Your task to perform on an android device: turn on sleep mode Image 0: 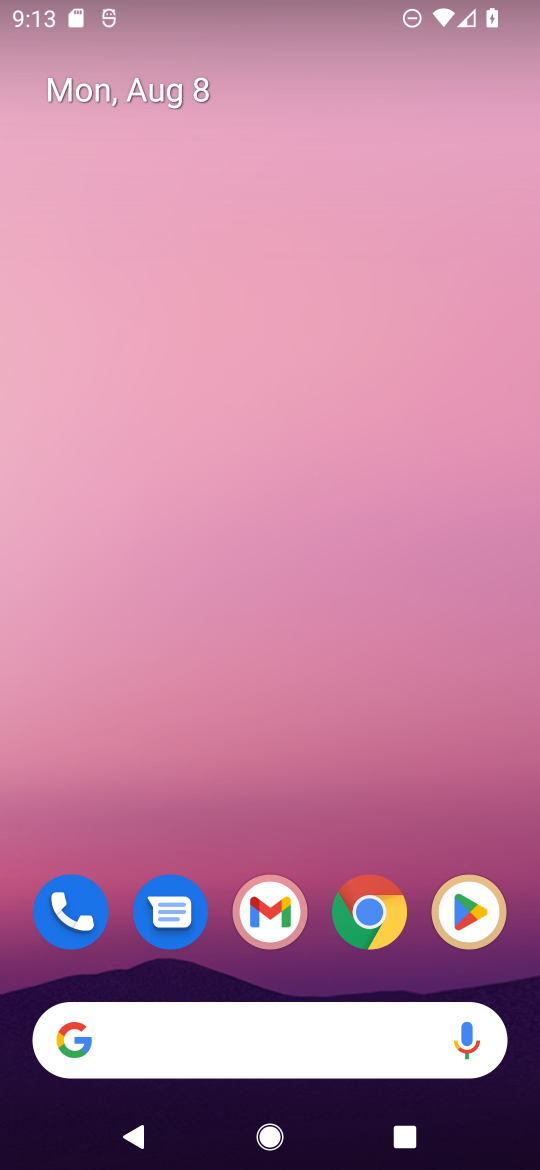
Step 0: drag from (412, 889) to (199, 16)
Your task to perform on an android device: turn on sleep mode Image 1: 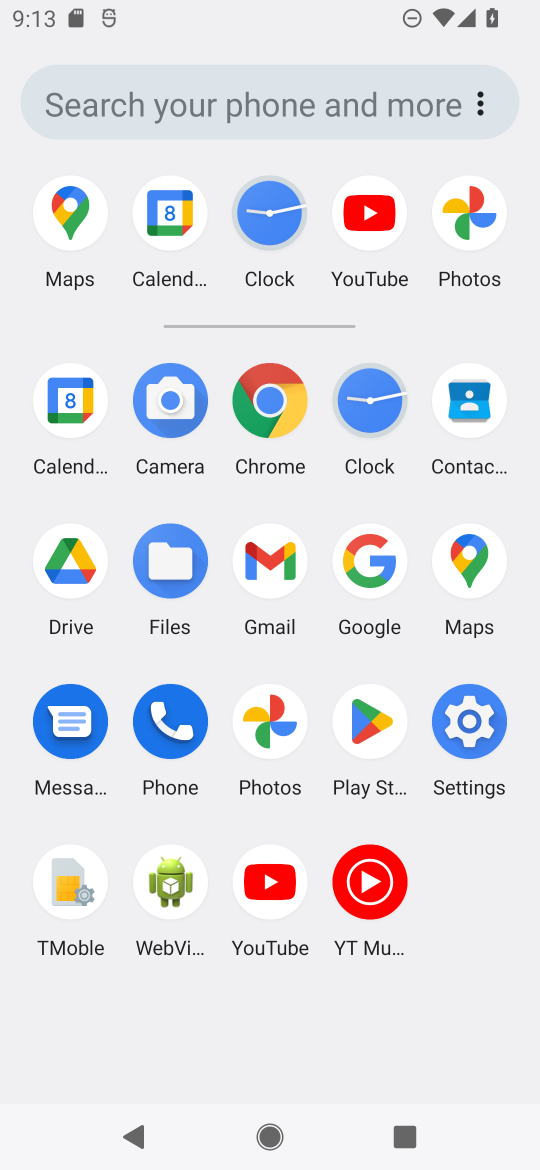
Step 1: click (480, 759)
Your task to perform on an android device: turn on sleep mode Image 2: 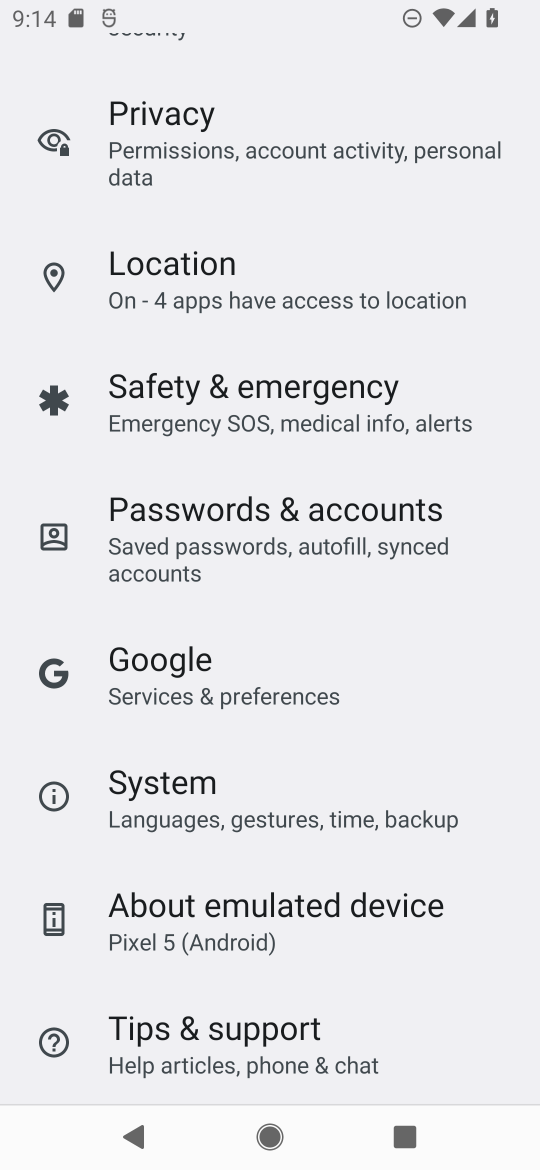
Step 2: task complete